Your task to perform on an android device: change keyboard looks Image 0: 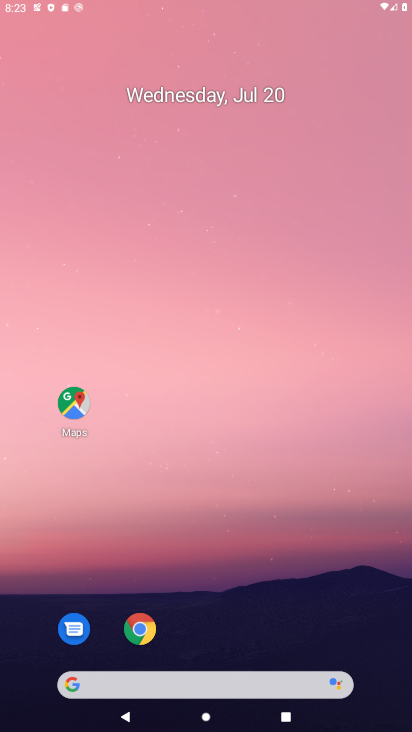
Step 0: click (189, 245)
Your task to perform on an android device: change keyboard looks Image 1: 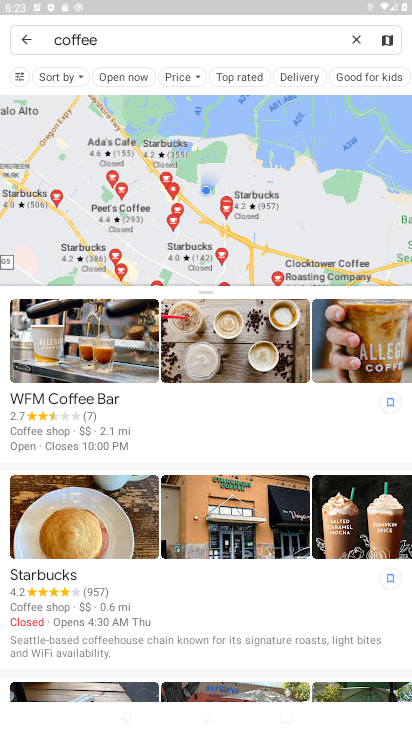
Step 1: press back button
Your task to perform on an android device: change keyboard looks Image 2: 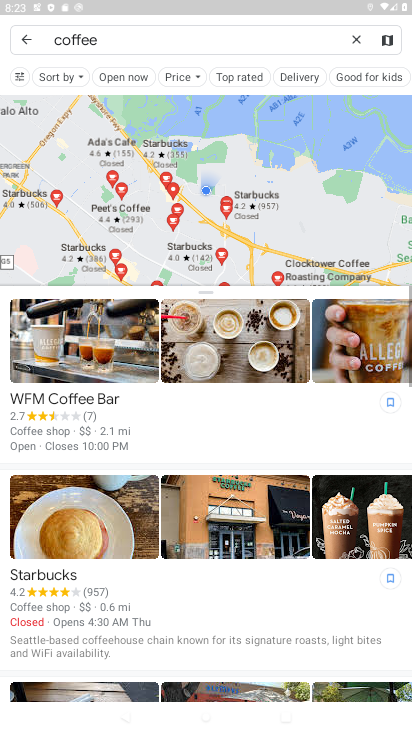
Step 2: press back button
Your task to perform on an android device: change keyboard looks Image 3: 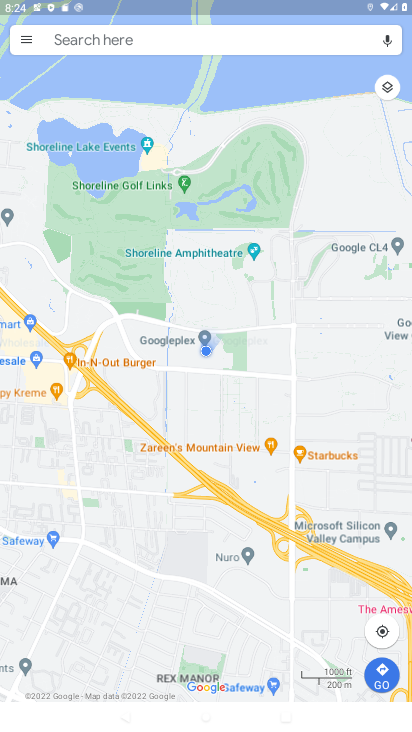
Step 3: press back button
Your task to perform on an android device: change keyboard looks Image 4: 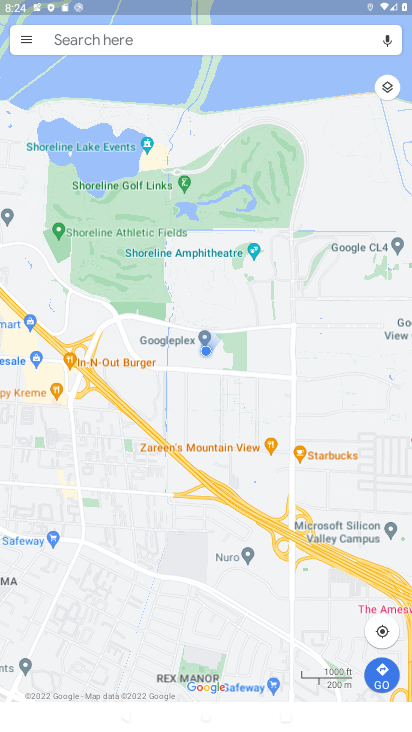
Step 4: click (24, 43)
Your task to perform on an android device: change keyboard looks Image 5: 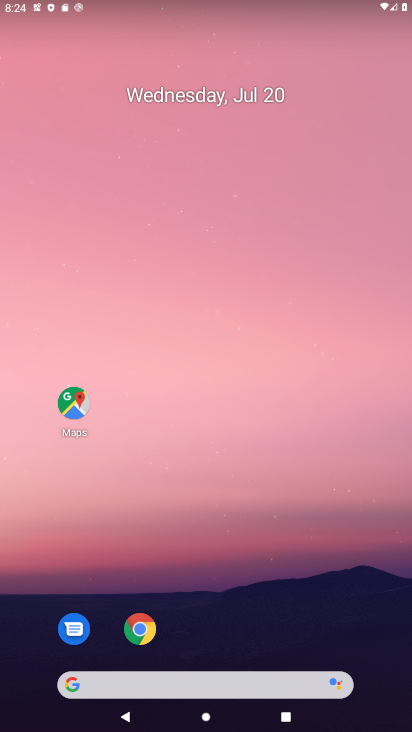
Step 5: drag from (261, 687) to (256, 122)
Your task to perform on an android device: change keyboard looks Image 6: 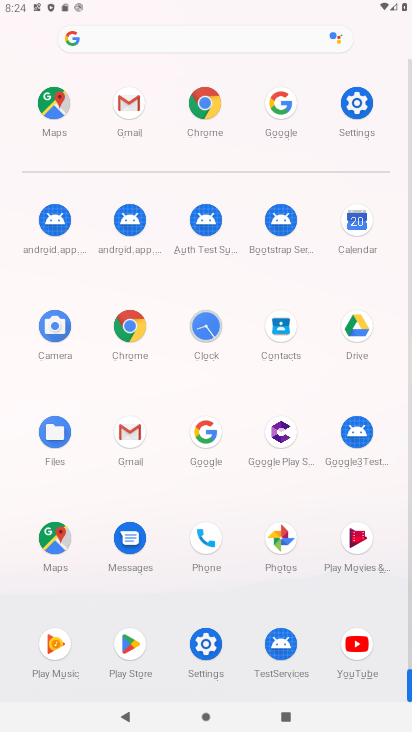
Step 6: click (359, 108)
Your task to perform on an android device: change keyboard looks Image 7: 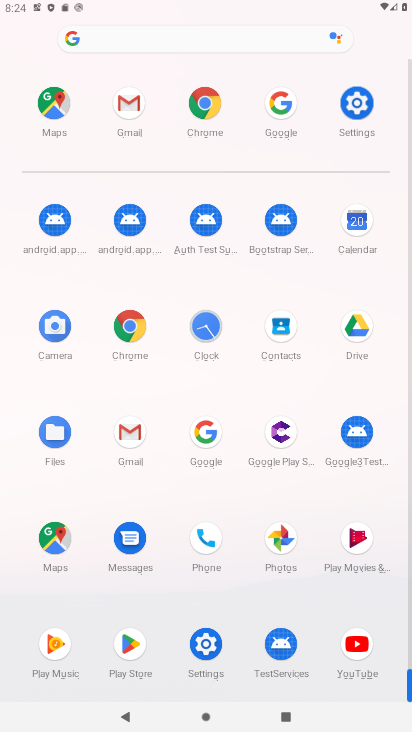
Step 7: click (361, 107)
Your task to perform on an android device: change keyboard looks Image 8: 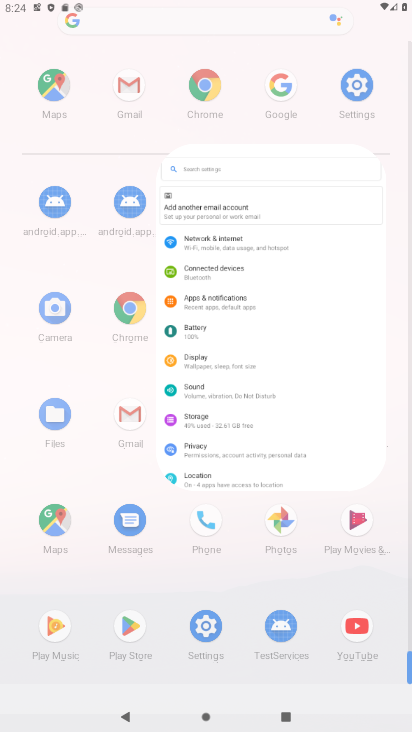
Step 8: click (365, 103)
Your task to perform on an android device: change keyboard looks Image 9: 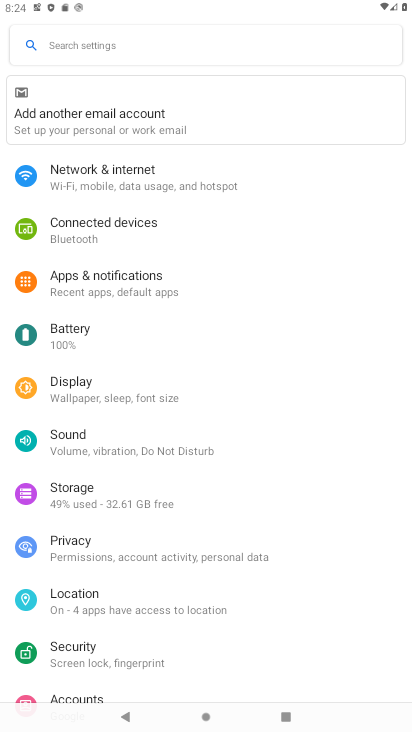
Step 9: drag from (87, 599) to (53, 187)
Your task to perform on an android device: change keyboard looks Image 10: 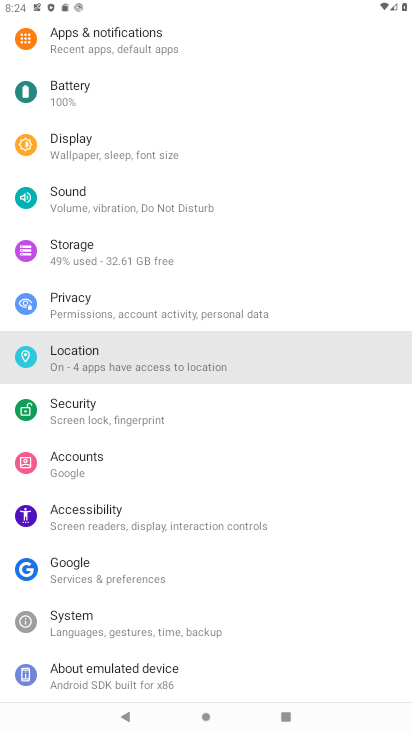
Step 10: drag from (186, 605) to (127, 174)
Your task to perform on an android device: change keyboard looks Image 11: 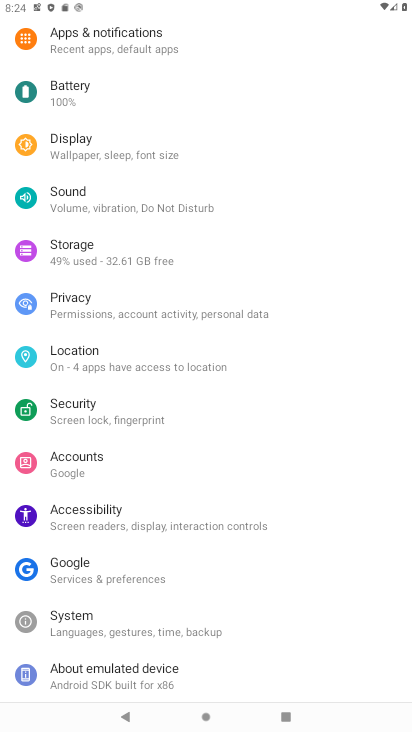
Step 11: click (90, 634)
Your task to perform on an android device: change keyboard looks Image 12: 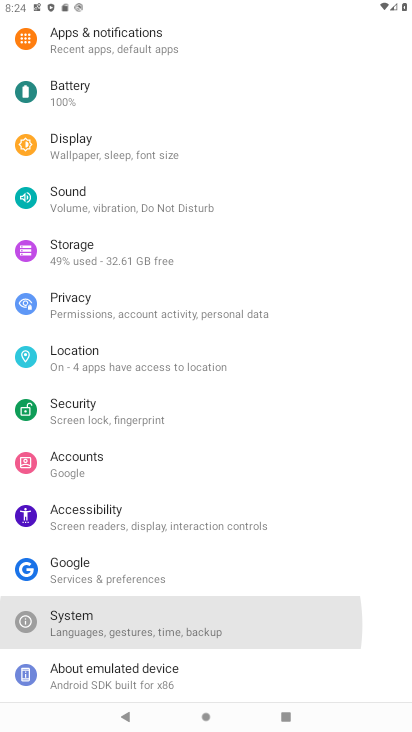
Step 12: click (89, 631)
Your task to perform on an android device: change keyboard looks Image 13: 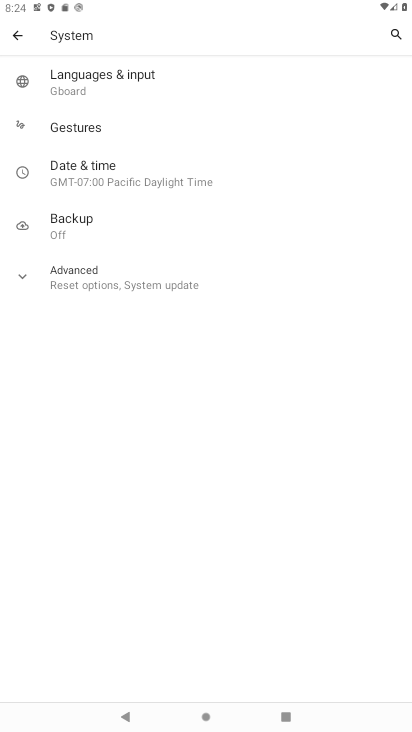
Step 13: click (65, 77)
Your task to perform on an android device: change keyboard looks Image 14: 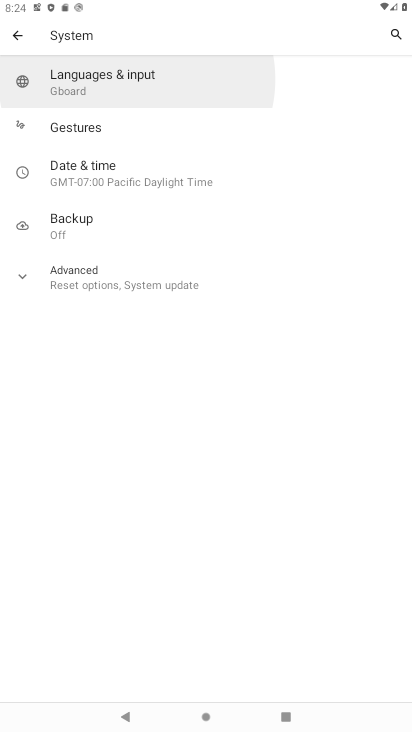
Step 14: click (66, 77)
Your task to perform on an android device: change keyboard looks Image 15: 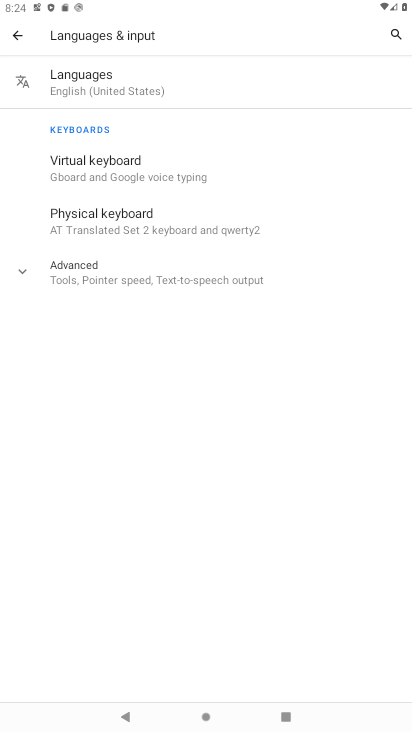
Step 15: click (89, 171)
Your task to perform on an android device: change keyboard looks Image 16: 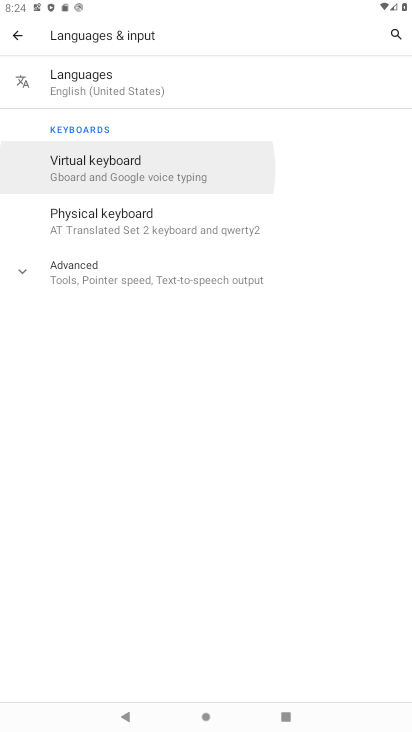
Step 16: click (92, 174)
Your task to perform on an android device: change keyboard looks Image 17: 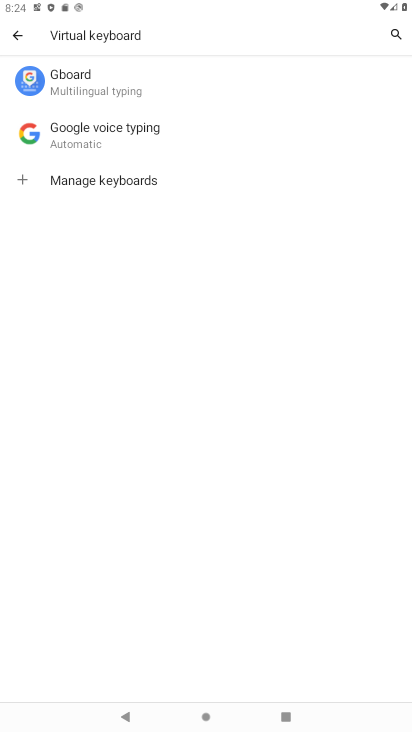
Step 17: click (65, 75)
Your task to perform on an android device: change keyboard looks Image 18: 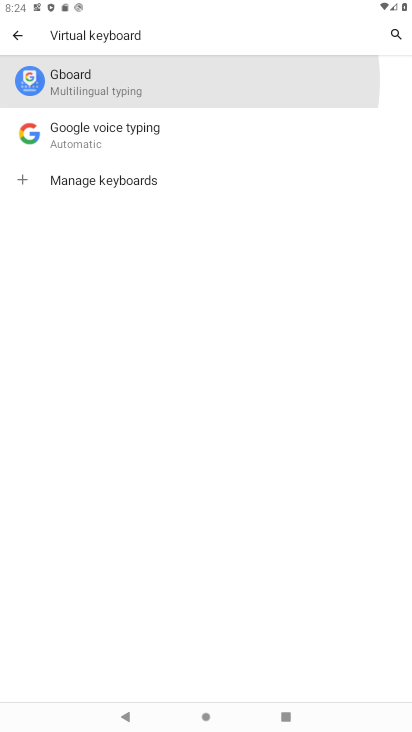
Step 18: click (81, 60)
Your task to perform on an android device: change keyboard looks Image 19: 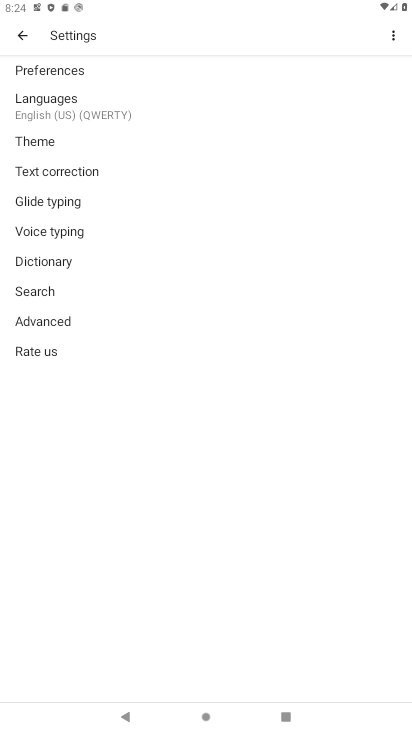
Step 19: click (29, 147)
Your task to perform on an android device: change keyboard looks Image 20: 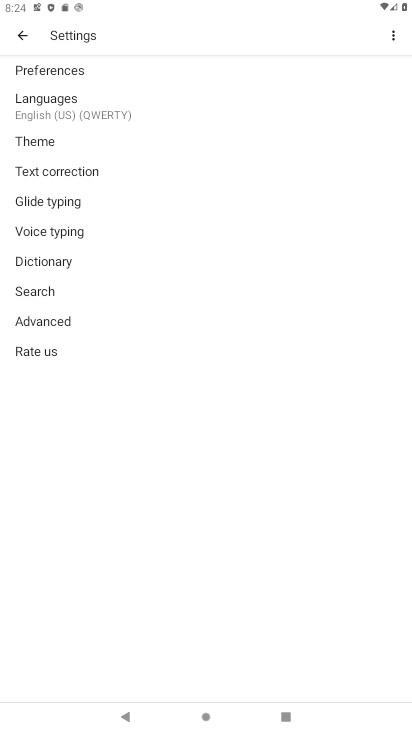
Step 20: click (35, 137)
Your task to perform on an android device: change keyboard looks Image 21: 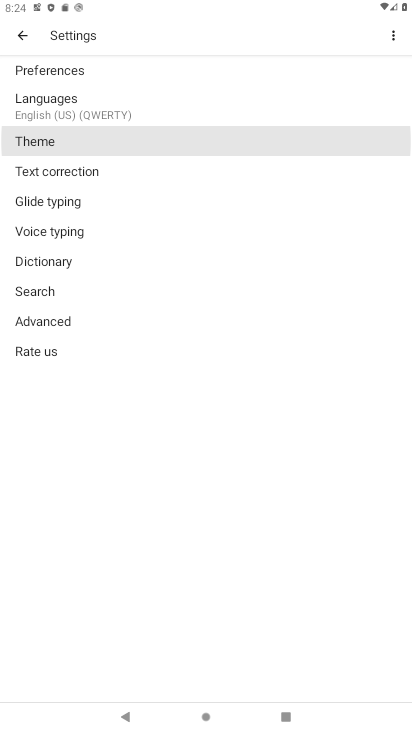
Step 21: click (35, 137)
Your task to perform on an android device: change keyboard looks Image 22: 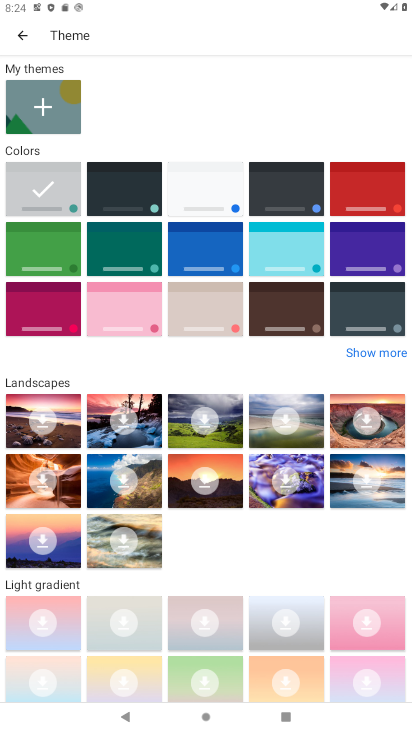
Step 22: click (11, 257)
Your task to perform on an android device: change keyboard looks Image 23: 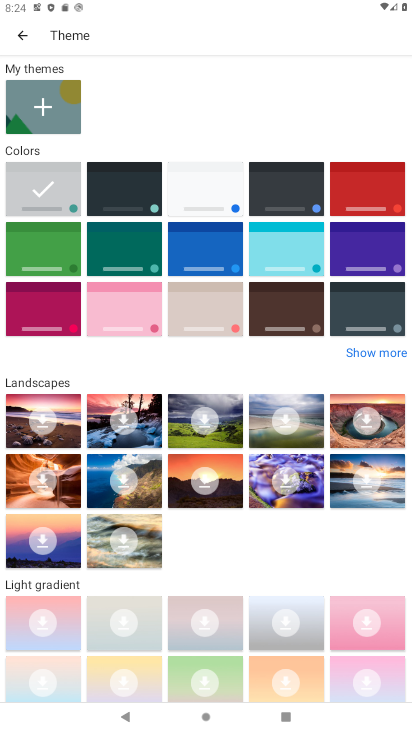
Step 23: click (28, 256)
Your task to perform on an android device: change keyboard looks Image 24: 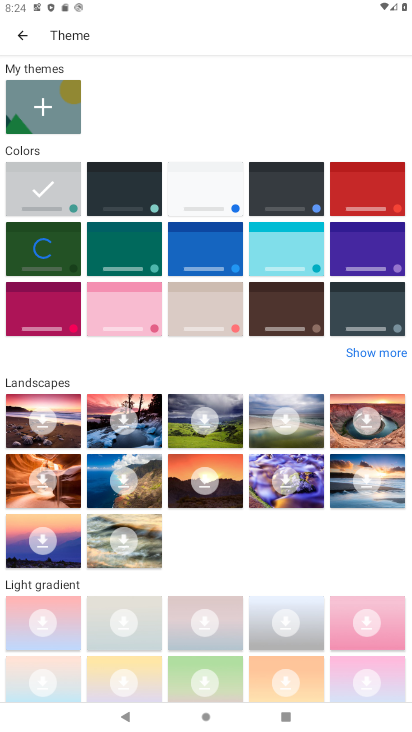
Step 24: click (32, 252)
Your task to perform on an android device: change keyboard looks Image 25: 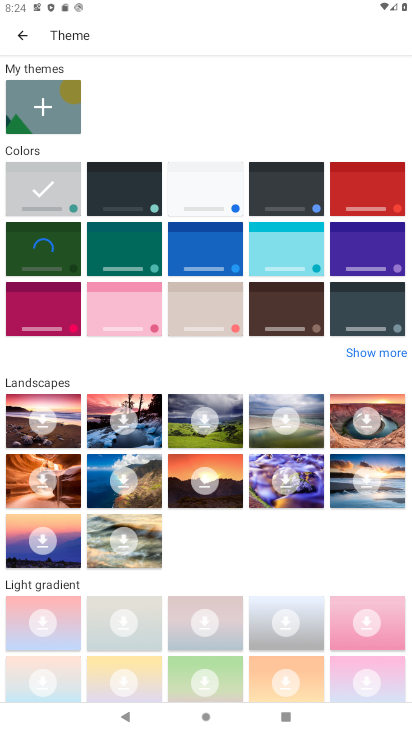
Step 25: click (34, 251)
Your task to perform on an android device: change keyboard looks Image 26: 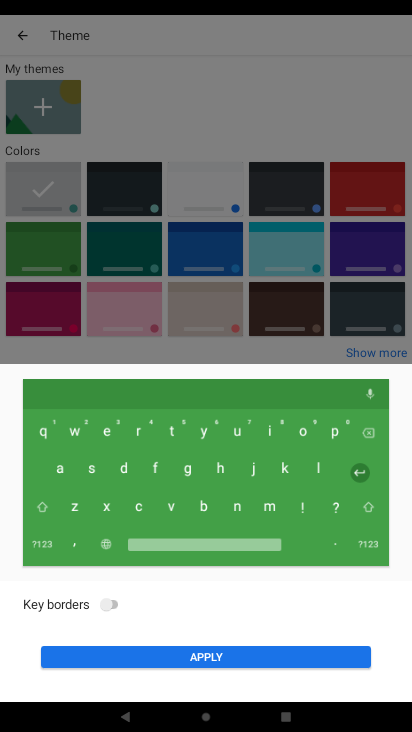
Step 26: click (239, 655)
Your task to perform on an android device: change keyboard looks Image 27: 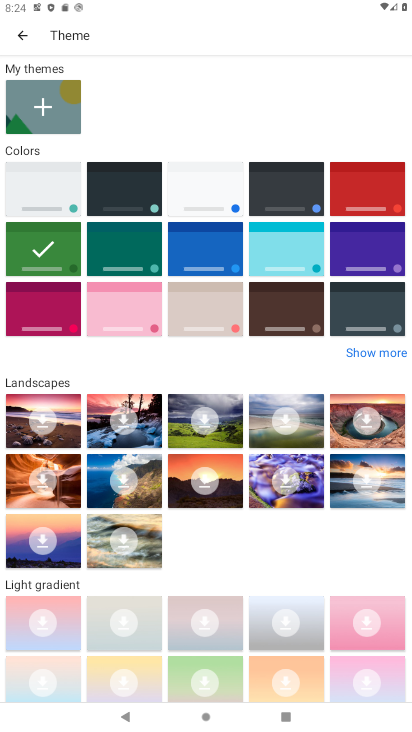
Step 27: task complete